Your task to perform on an android device: open a bookmark in the chrome app Image 0: 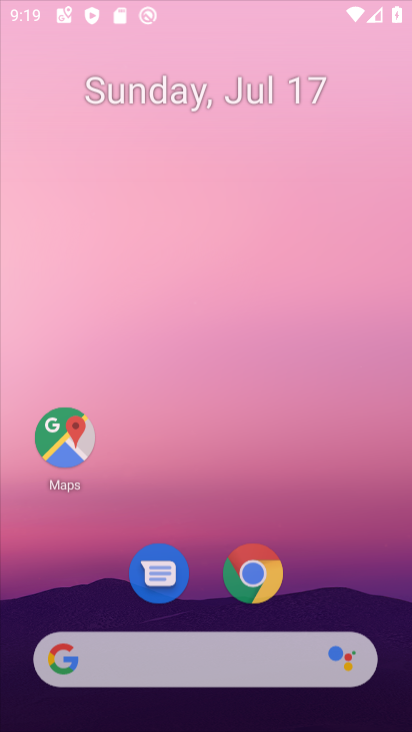
Step 0: drag from (216, 18) to (258, 63)
Your task to perform on an android device: open a bookmark in the chrome app Image 1: 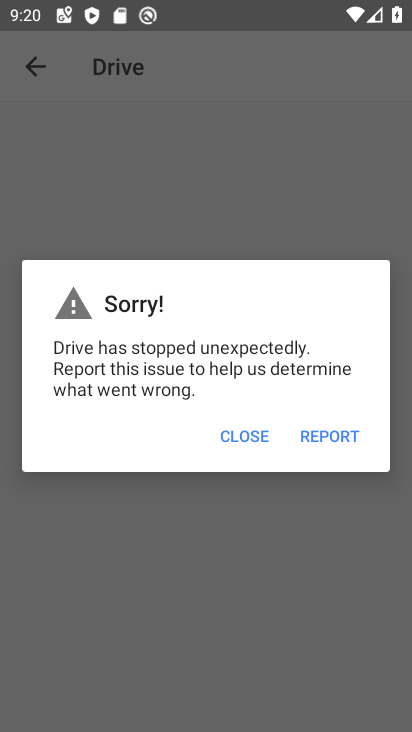
Step 1: press home button
Your task to perform on an android device: open a bookmark in the chrome app Image 2: 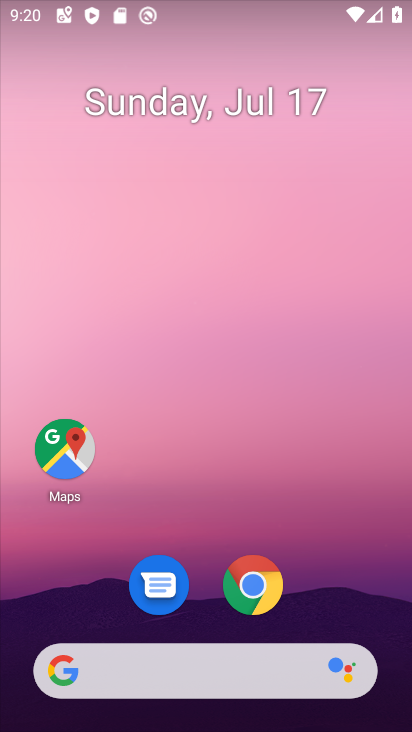
Step 2: click (269, 585)
Your task to perform on an android device: open a bookmark in the chrome app Image 3: 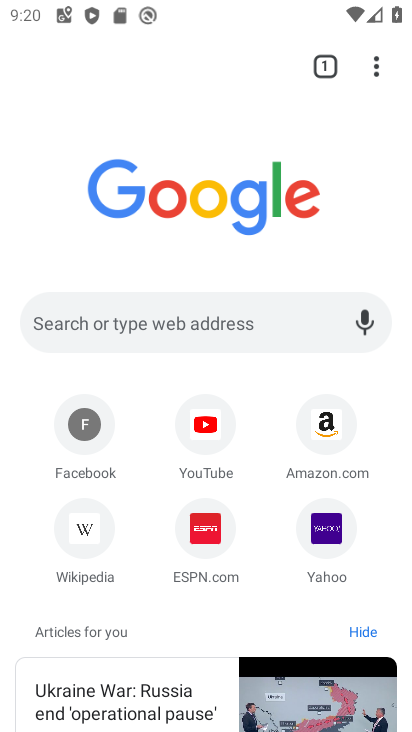
Step 3: click (374, 71)
Your task to perform on an android device: open a bookmark in the chrome app Image 4: 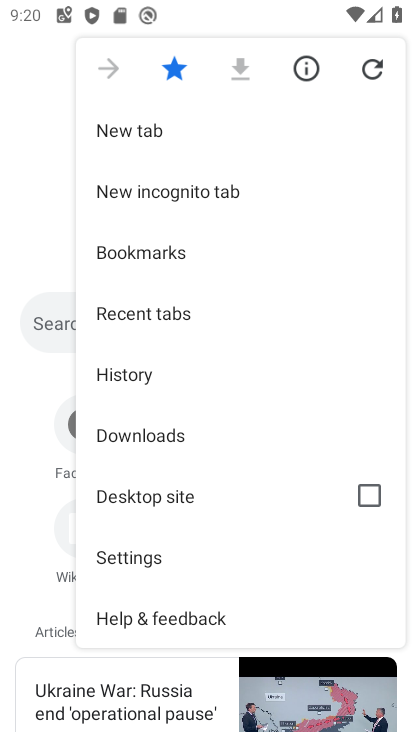
Step 4: click (164, 249)
Your task to perform on an android device: open a bookmark in the chrome app Image 5: 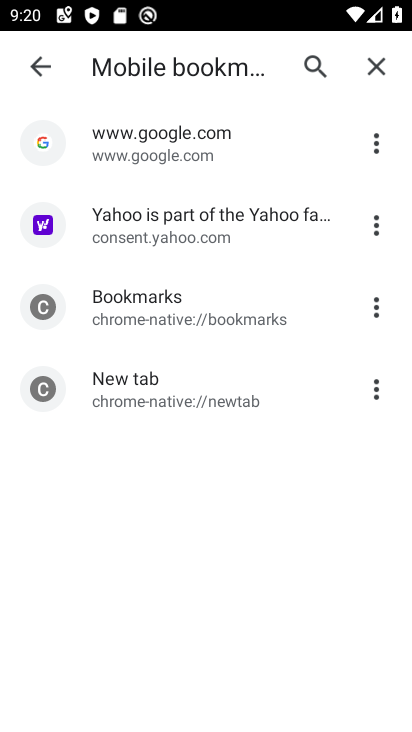
Step 5: click (170, 233)
Your task to perform on an android device: open a bookmark in the chrome app Image 6: 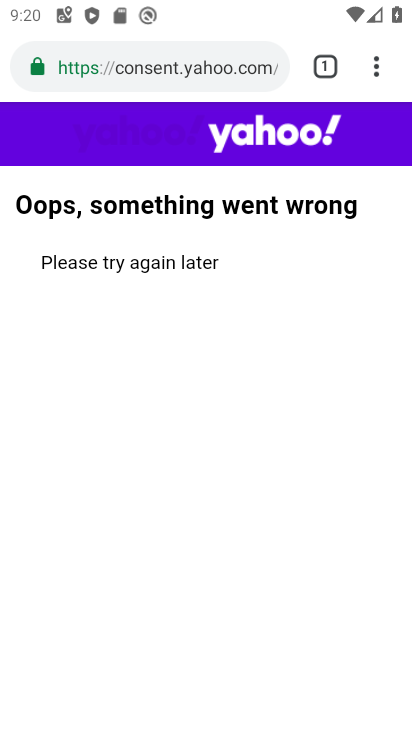
Step 6: task complete